Your task to perform on an android device: set the timer Image 0: 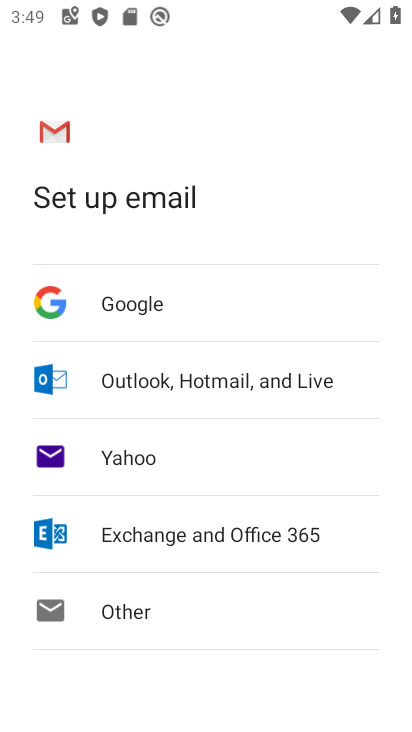
Step 0: press home button
Your task to perform on an android device: set the timer Image 1: 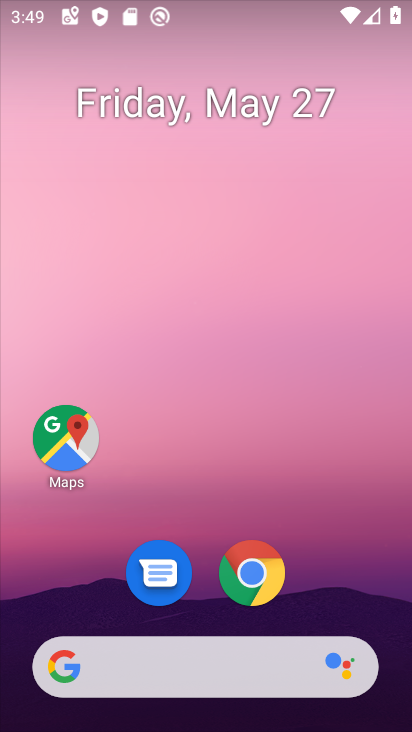
Step 1: drag from (238, 516) to (305, 25)
Your task to perform on an android device: set the timer Image 2: 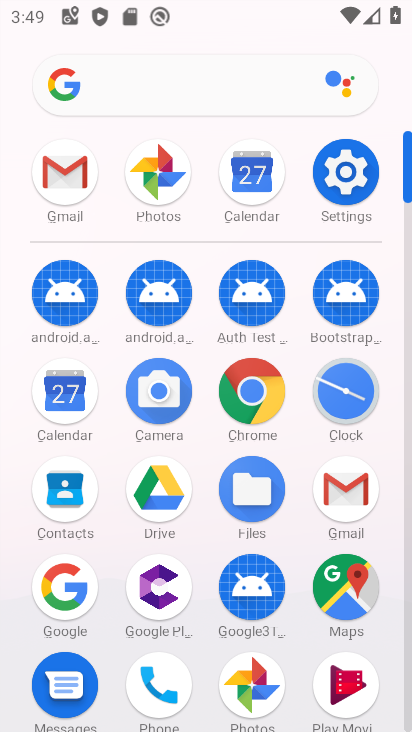
Step 2: click (337, 387)
Your task to perform on an android device: set the timer Image 3: 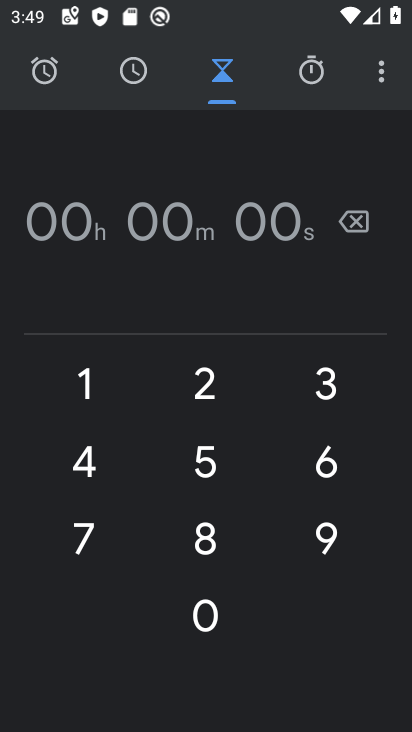
Step 3: click (92, 383)
Your task to perform on an android device: set the timer Image 4: 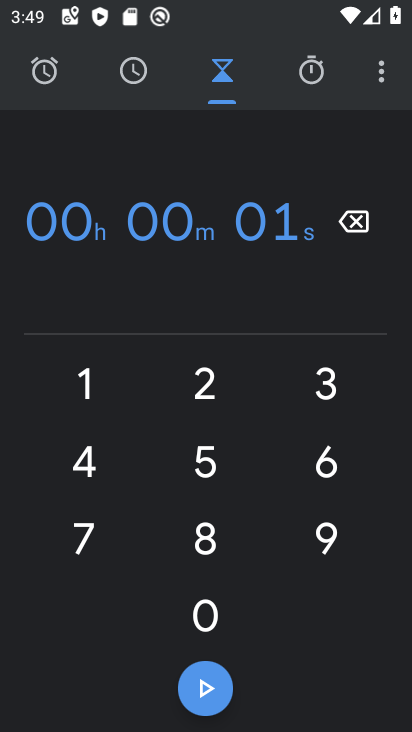
Step 4: click (88, 460)
Your task to perform on an android device: set the timer Image 5: 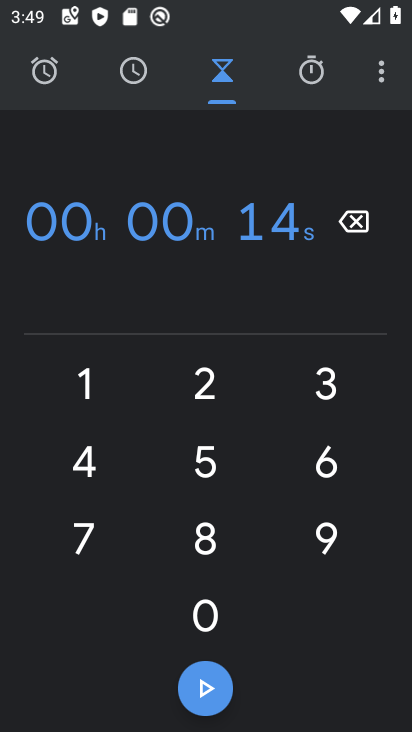
Step 5: task complete